Your task to perform on an android device: toggle wifi Image 0: 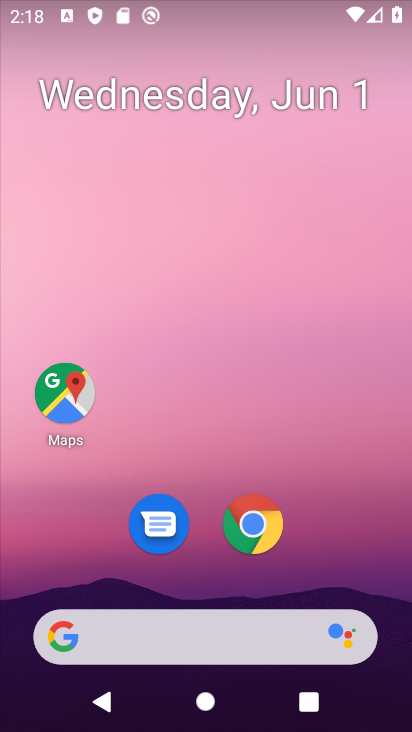
Step 0: drag from (342, 523) to (290, 9)
Your task to perform on an android device: toggle wifi Image 1: 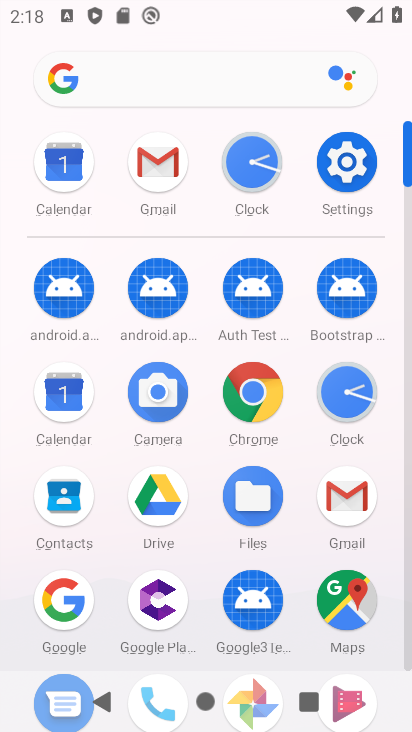
Step 1: click (347, 166)
Your task to perform on an android device: toggle wifi Image 2: 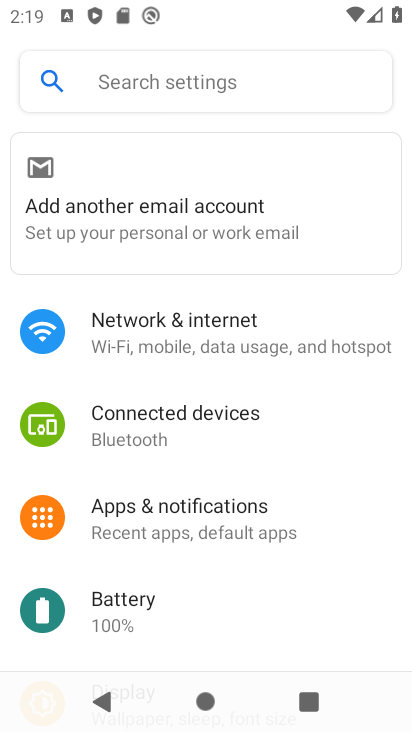
Step 2: click (257, 327)
Your task to perform on an android device: toggle wifi Image 3: 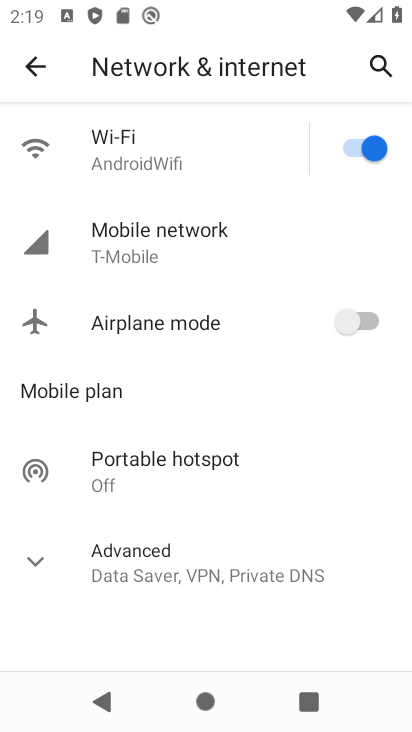
Step 3: click (356, 147)
Your task to perform on an android device: toggle wifi Image 4: 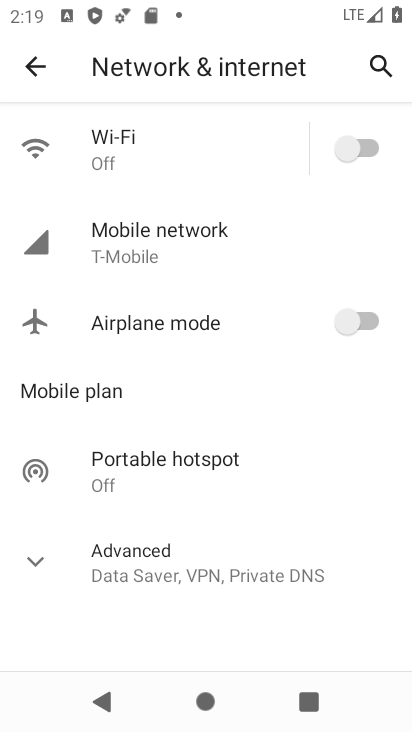
Step 4: task complete